Your task to perform on an android device: See recent photos Image 0: 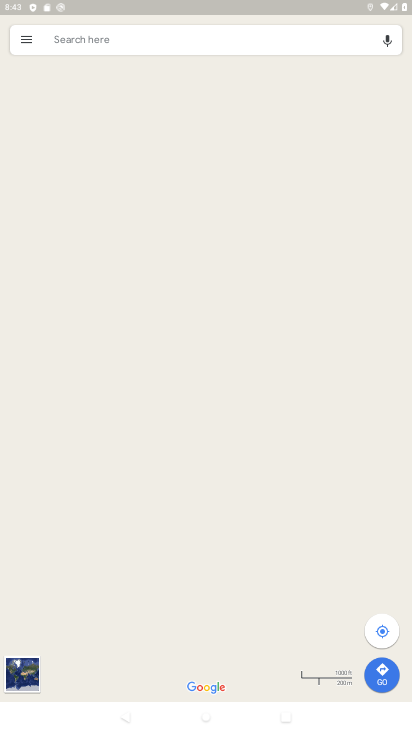
Step 0: press home button
Your task to perform on an android device: See recent photos Image 1: 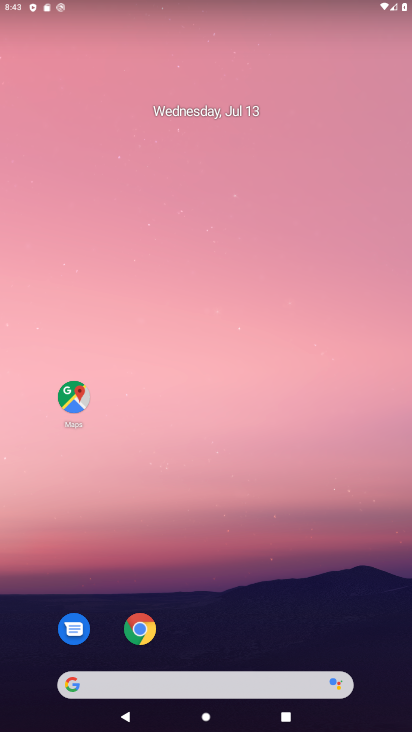
Step 1: drag from (237, 597) to (188, 123)
Your task to perform on an android device: See recent photos Image 2: 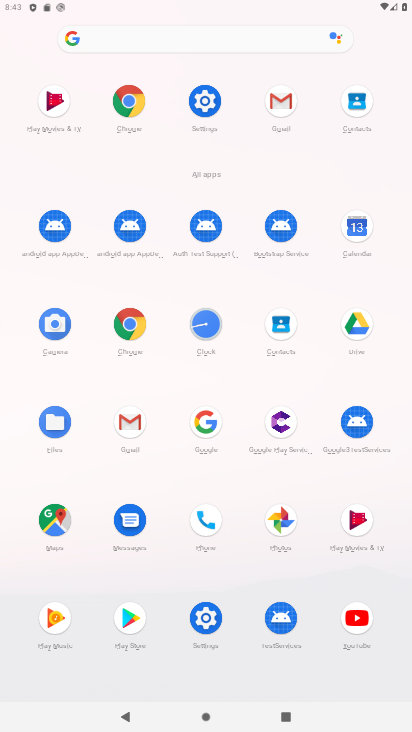
Step 2: click (290, 509)
Your task to perform on an android device: See recent photos Image 3: 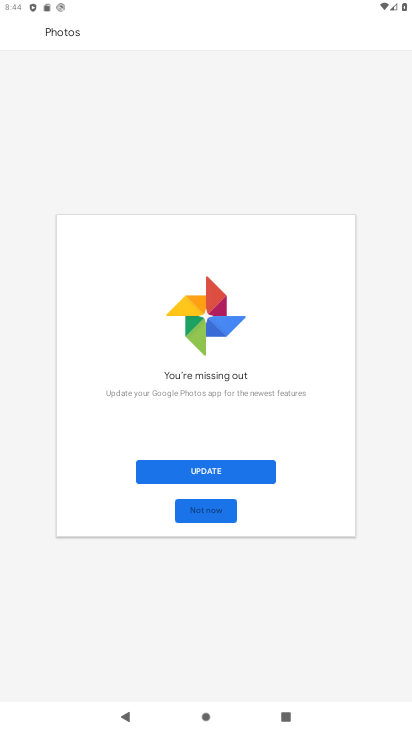
Step 3: click (207, 472)
Your task to perform on an android device: See recent photos Image 4: 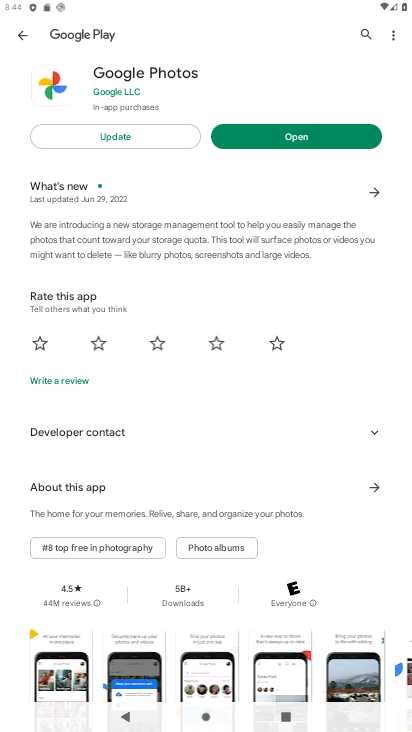
Step 4: click (187, 138)
Your task to perform on an android device: See recent photos Image 5: 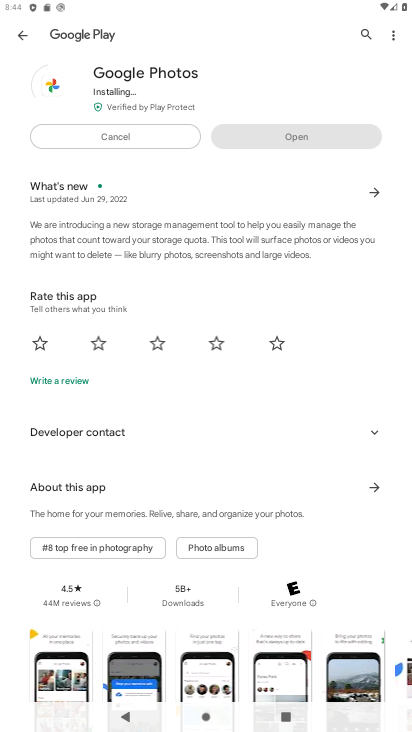
Step 5: click (321, 136)
Your task to perform on an android device: See recent photos Image 6: 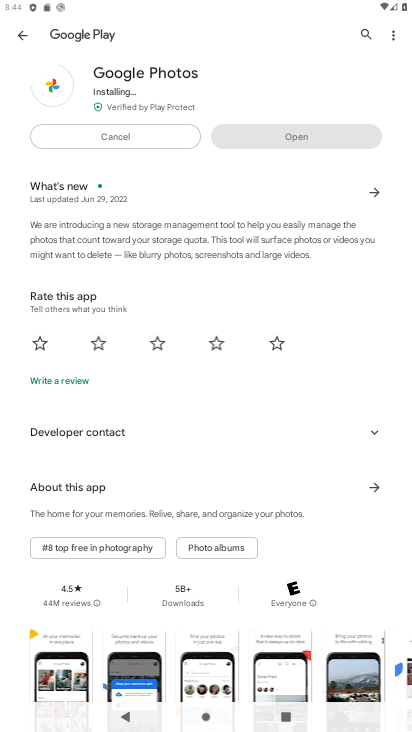
Step 6: click (323, 145)
Your task to perform on an android device: See recent photos Image 7: 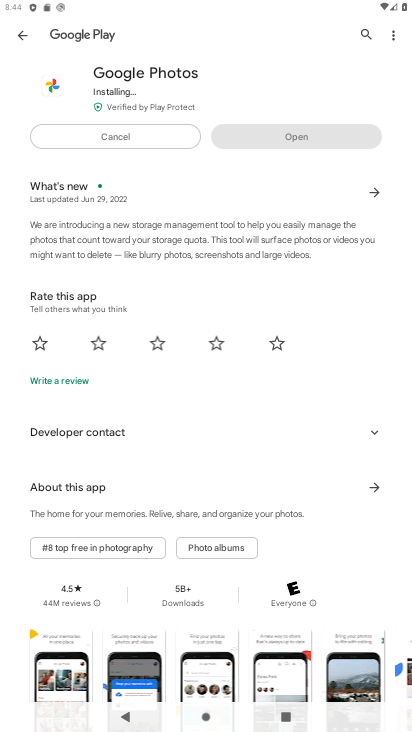
Step 7: click (93, 129)
Your task to perform on an android device: See recent photos Image 8: 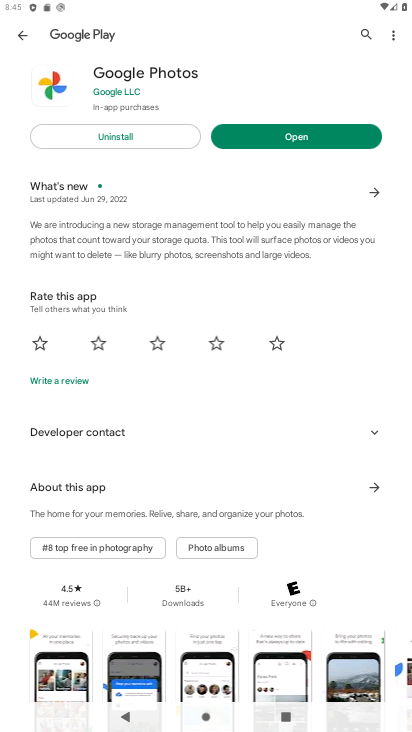
Step 8: click (111, 135)
Your task to perform on an android device: See recent photos Image 9: 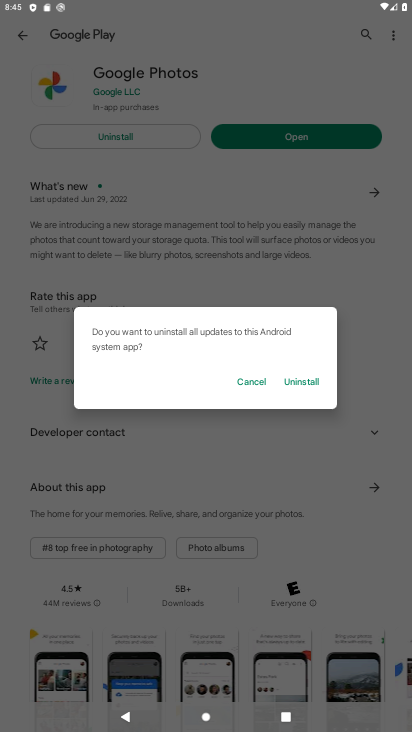
Step 9: click (243, 369)
Your task to perform on an android device: See recent photos Image 10: 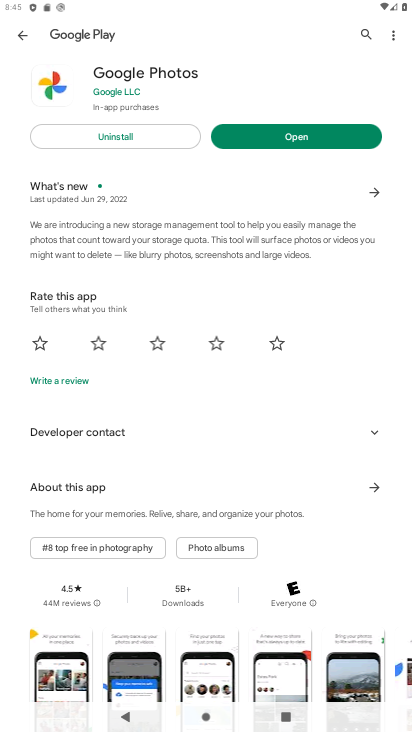
Step 10: click (253, 124)
Your task to perform on an android device: See recent photos Image 11: 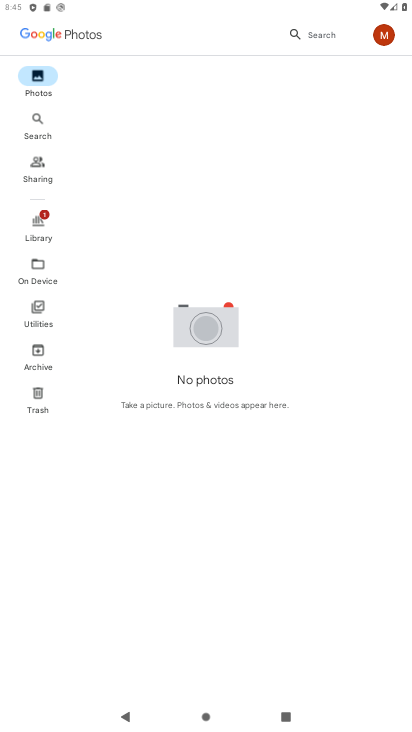
Step 11: click (25, 87)
Your task to perform on an android device: See recent photos Image 12: 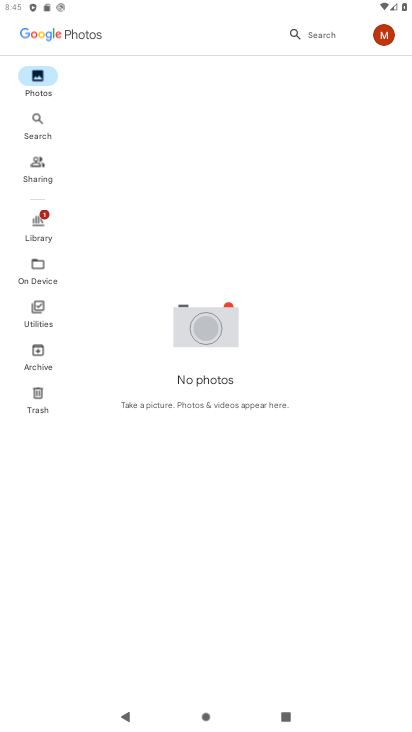
Step 12: task complete